Your task to perform on an android device: open sync settings in chrome Image 0: 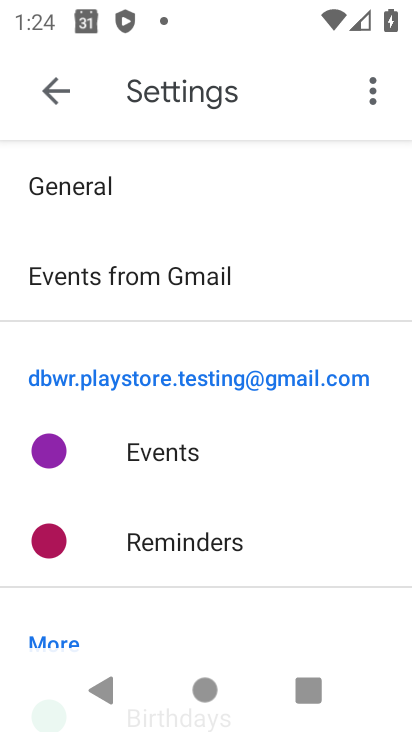
Step 0: press home button
Your task to perform on an android device: open sync settings in chrome Image 1: 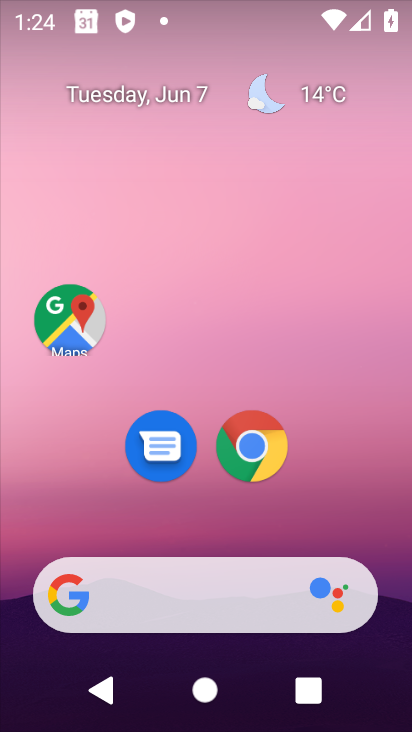
Step 1: click (260, 452)
Your task to perform on an android device: open sync settings in chrome Image 2: 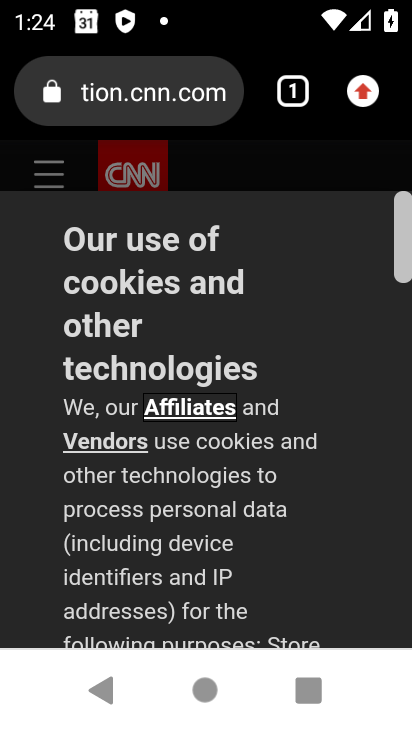
Step 2: click (362, 94)
Your task to perform on an android device: open sync settings in chrome Image 3: 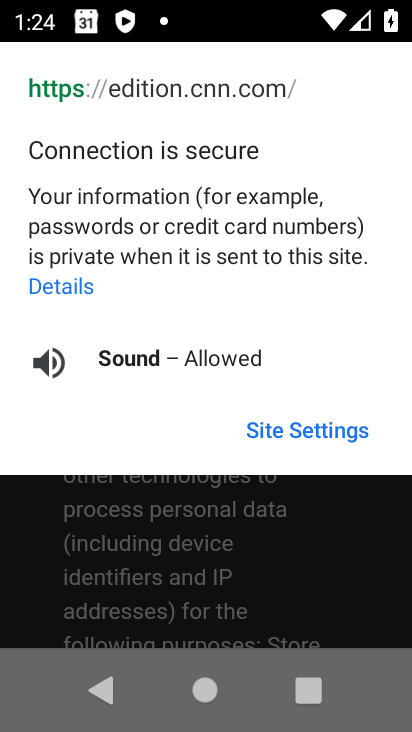
Step 3: click (275, 547)
Your task to perform on an android device: open sync settings in chrome Image 4: 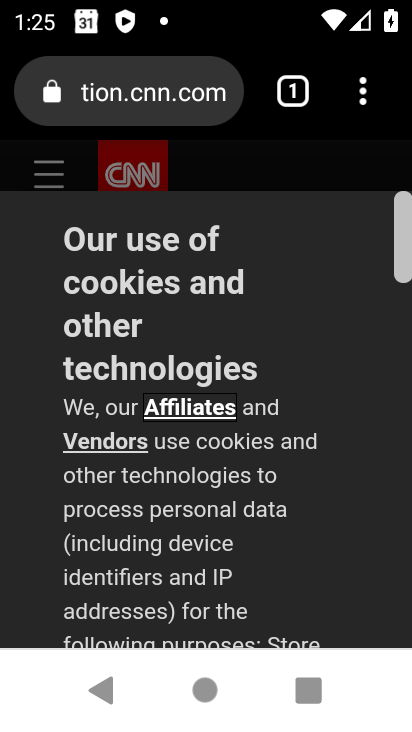
Step 4: click (366, 89)
Your task to perform on an android device: open sync settings in chrome Image 5: 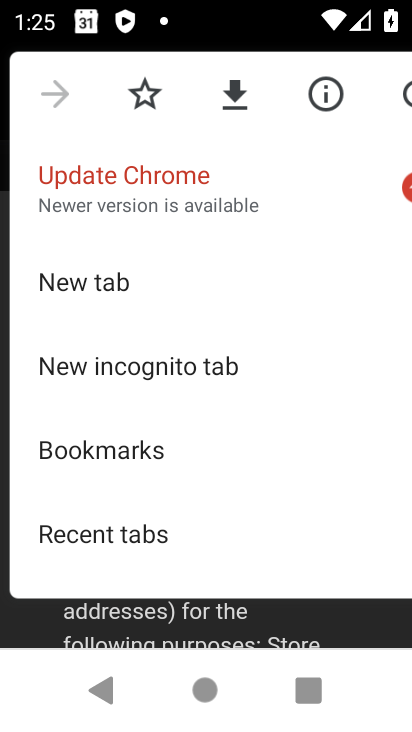
Step 5: drag from (189, 516) to (210, 132)
Your task to perform on an android device: open sync settings in chrome Image 6: 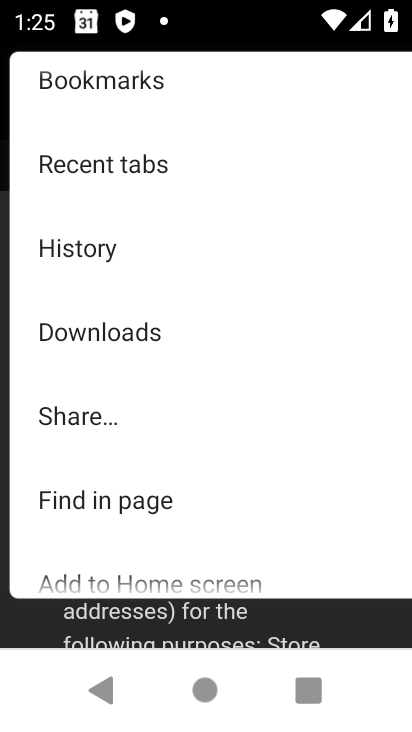
Step 6: drag from (237, 567) to (222, 85)
Your task to perform on an android device: open sync settings in chrome Image 7: 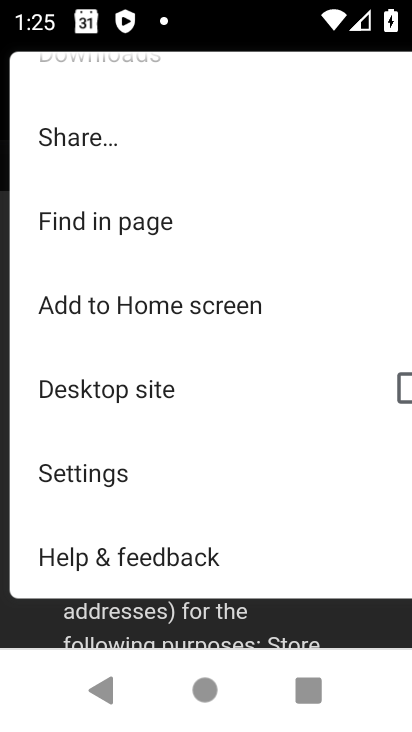
Step 7: click (117, 467)
Your task to perform on an android device: open sync settings in chrome Image 8: 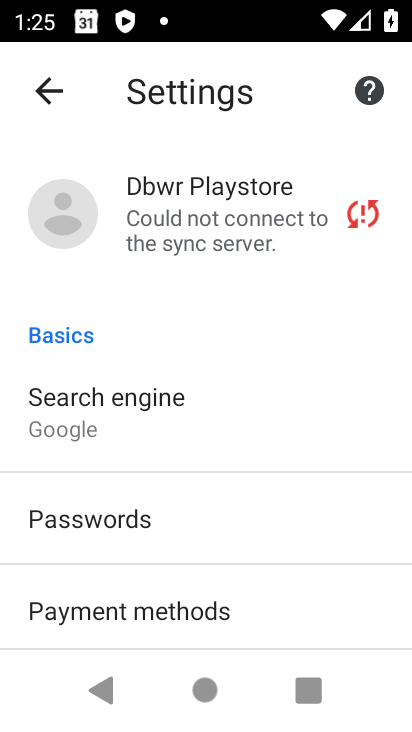
Step 8: click (251, 237)
Your task to perform on an android device: open sync settings in chrome Image 9: 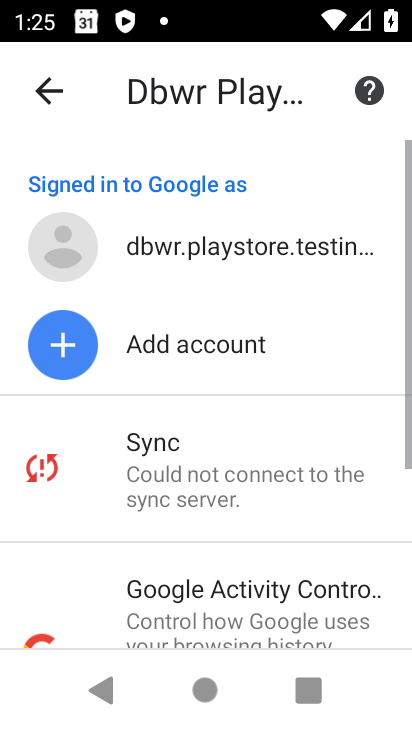
Step 9: click (253, 480)
Your task to perform on an android device: open sync settings in chrome Image 10: 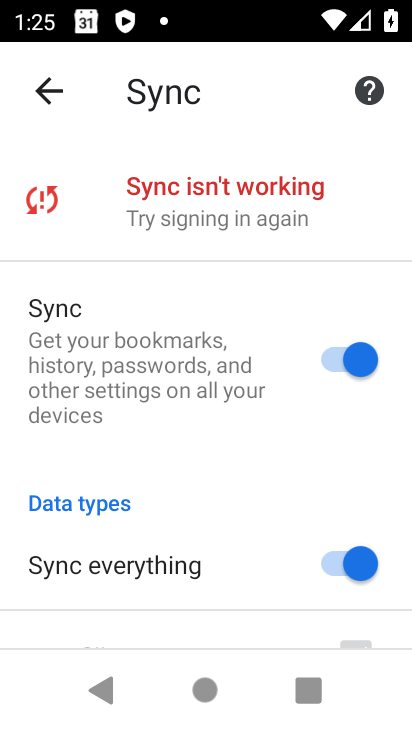
Step 10: task complete